Your task to perform on an android device: Open Google Chrome Image 0: 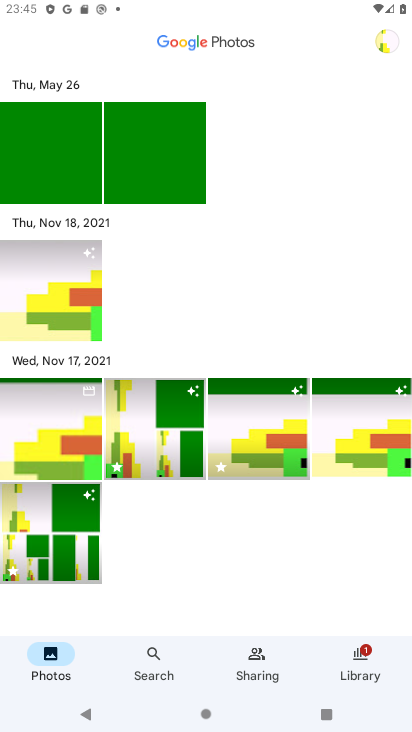
Step 0: press home button
Your task to perform on an android device: Open Google Chrome Image 1: 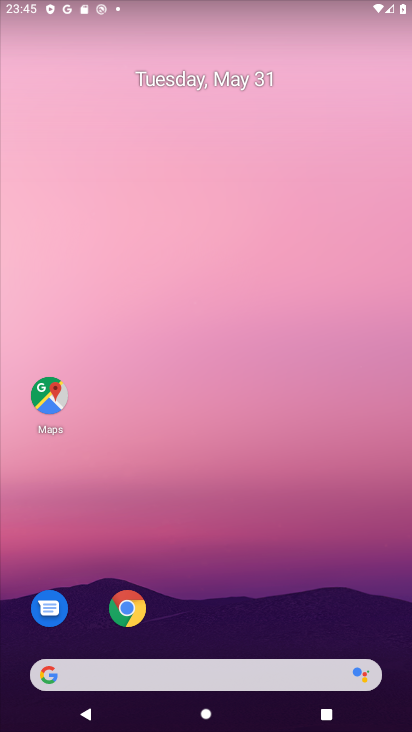
Step 1: click (142, 611)
Your task to perform on an android device: Open Google Chrome Image 2: 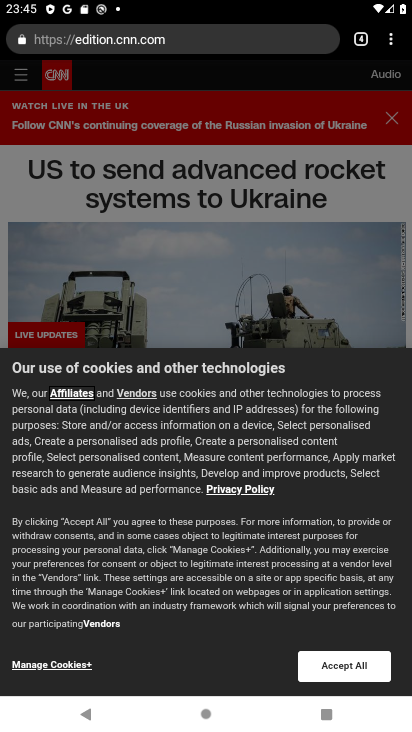
Step 2: task complete